Your task to perform on an android device: find which apps use the phone's location Image 0: 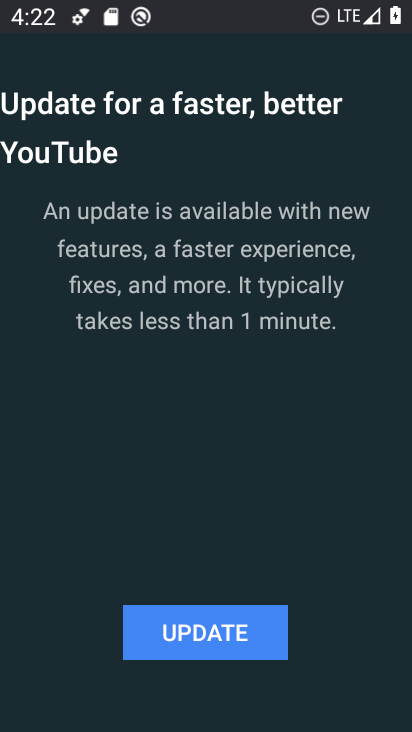
Step 0: press home button
Your task to perform on an android device: find which apps use the phone's location Image 1: 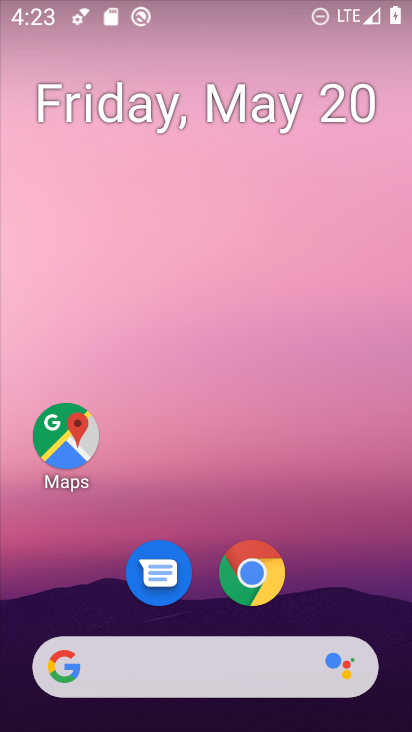
Step 1: drag from (347, 594) to (305, 70)
Your task to perform on an android device: find which apps use the phone's location Image 2: 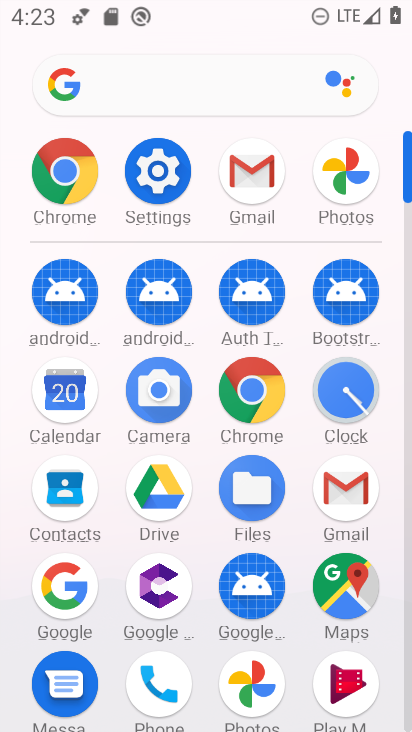
Step 2: click (172, 154)
Your task to perform on an android device: find which apps use the phone's location Image 3: 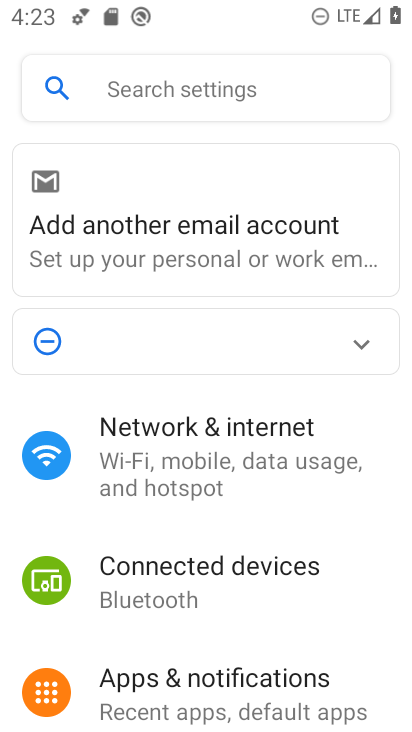
Step 3: drag from (296, 617) to (227, 176)
Your task to perform on an android device: find which apps use the phone's location Image 4: 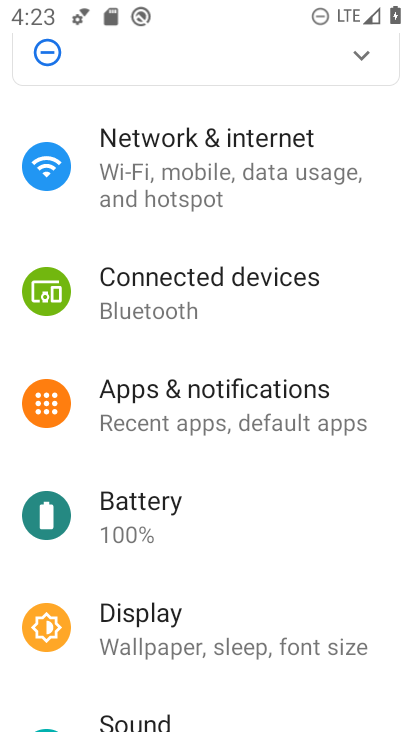
Step 4: drag from (215, 566) to (215, 249)
Your task to perform on an android device: find which apps use the phone's location Image 5: 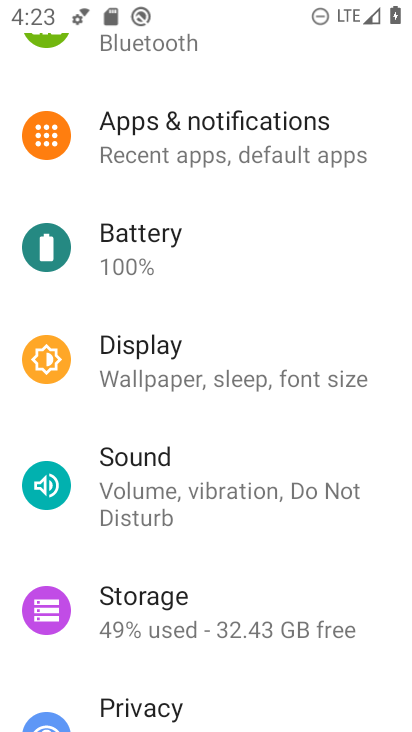
Step 5: drag from (257, 675) to (227, 155)
Your task to perform on an android device: find which apps use the phone's location Image 6: 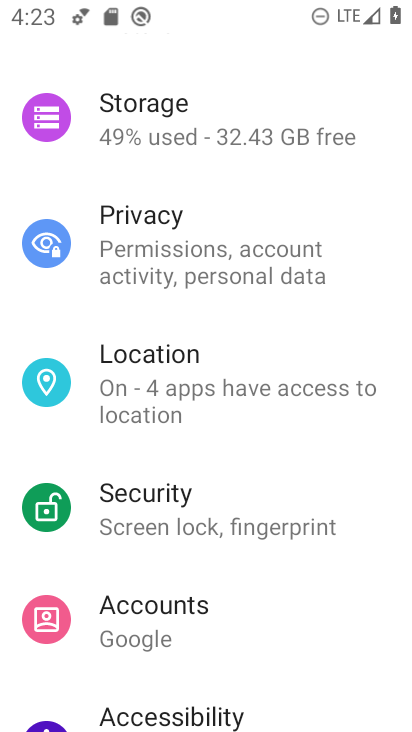
Step 6: click (255, 379)
Your task to perform on an android device: find which apps use the phone's location Image 7: 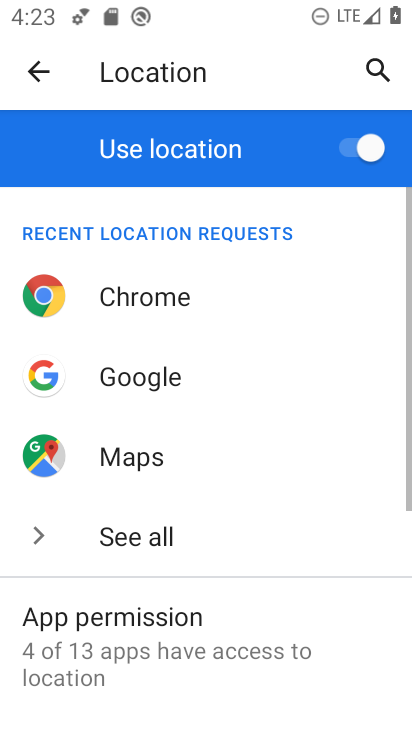
Step 7: click (278, 635)
Your task to perform on an android device: find which apps use the phone's location Image 8: 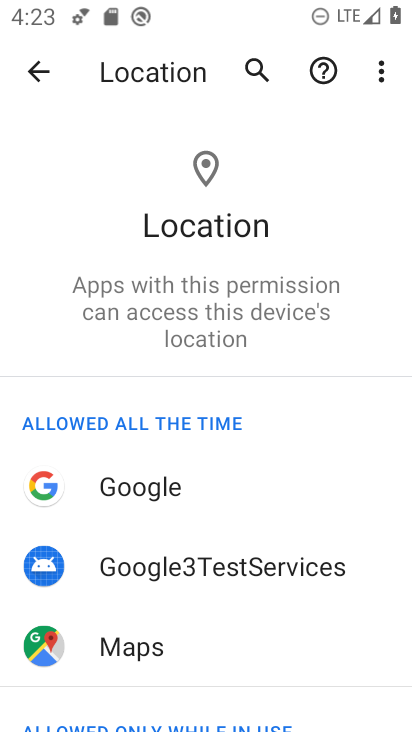
Step 8: task complete